Your task to perform on an android device: toggle pop-ups in chrome Image 0: 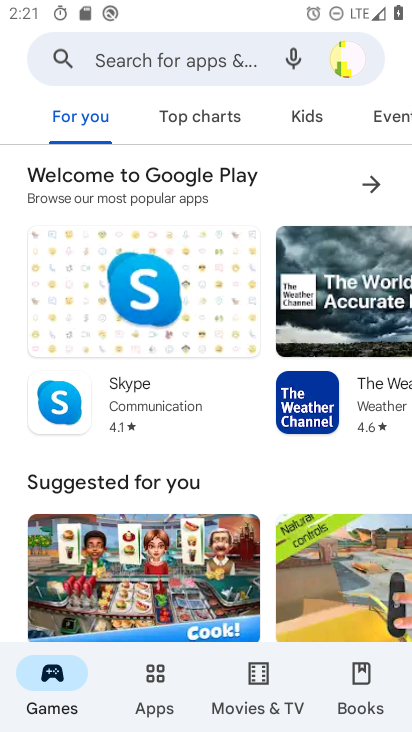
Step 0: press home button
Your task to perform on an android device: toggle pop-ups in chrome Image 1: 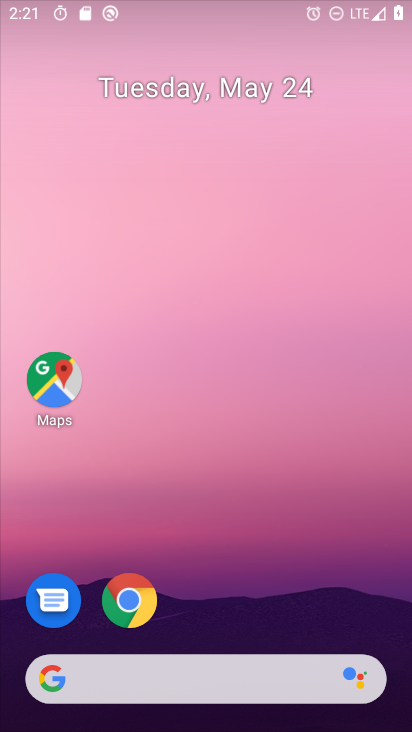
Step 1: drag from (298, 532) to (265, 129)
Your task to perform on an android device: toggle pop-ups in chrome Image 2: 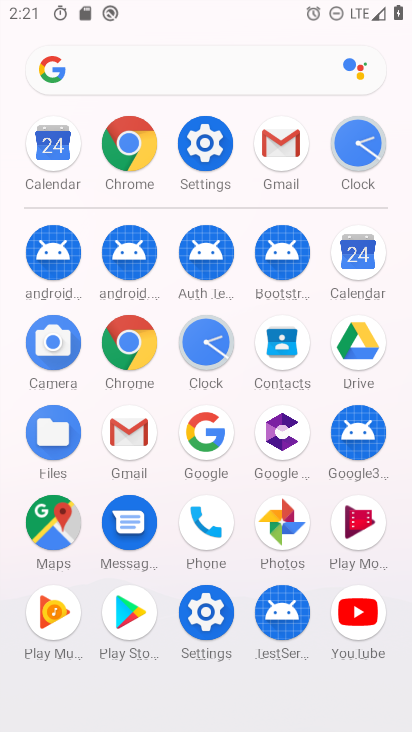
Step 2: click (137, 157)
Your task to perform on an android device: toggle pop-ups in chrome Image 3: 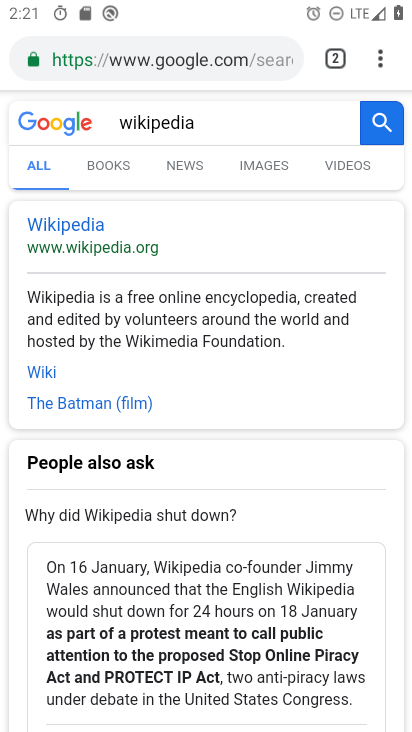
Step 3: click (389, 52)
Your task to perform on an android device: toggle pop-ups in chrome Image 4: 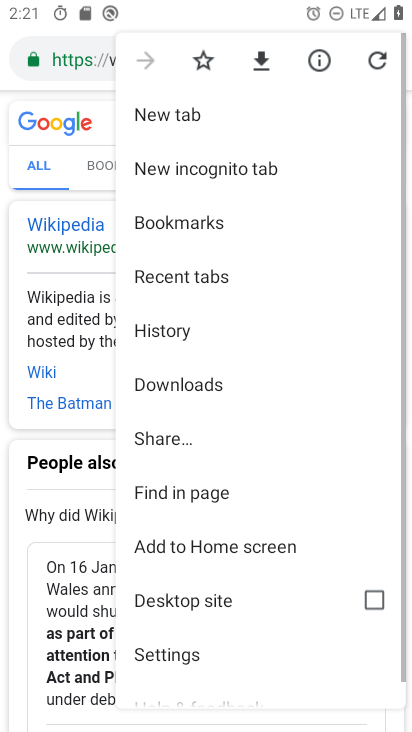
Step 4: drag from (283, 572) to (298, 133)
Your task to perform on an android device: toggle pop-ups in chrome Image 5: 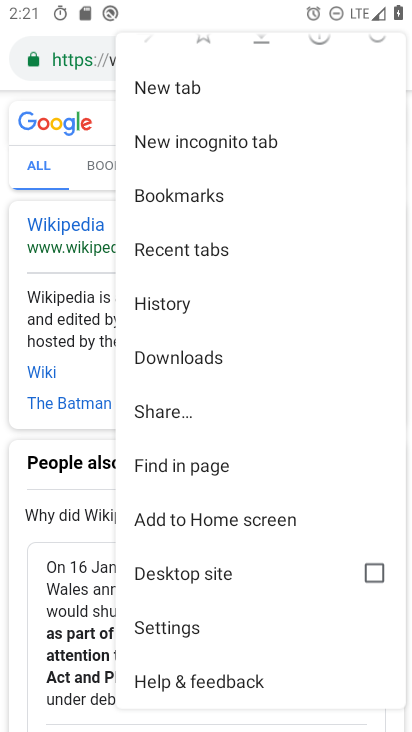
Step 5: click (216, 627)
Your task to perform on an android device: toggle pop-ups in chrome Image 6: 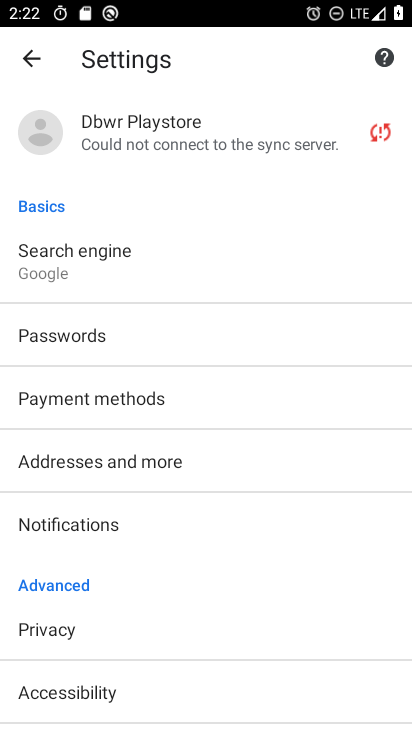
Step 6: drag from (190, 632) to (217, 245)
Your task to perform on an android device: toggle pop-ups in chrome Image 7: 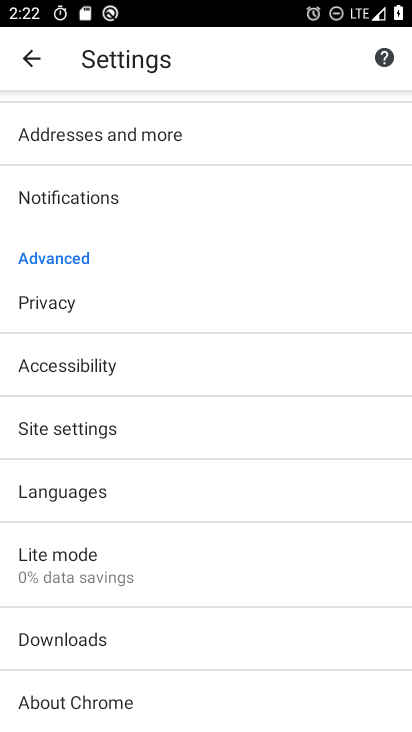
Step 7: click (128, 425)
Your task to perform on an android device: toggle pop-ups in chrome Image 8: 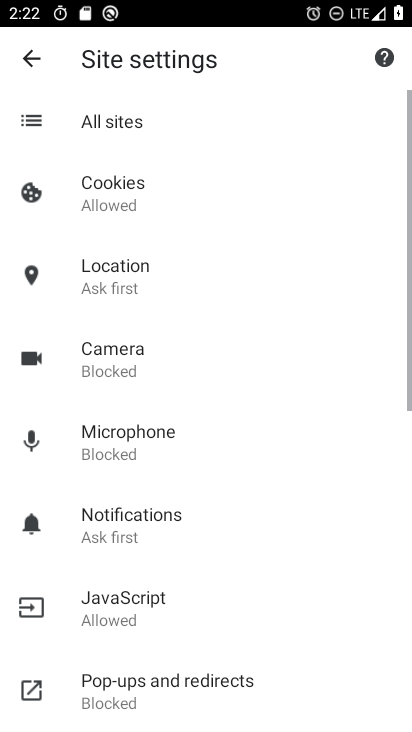
Step 8: drag from (259, 598) to (249, 212)
Your task to perform on an android device: toggle pop-ups in chrome Image 9: 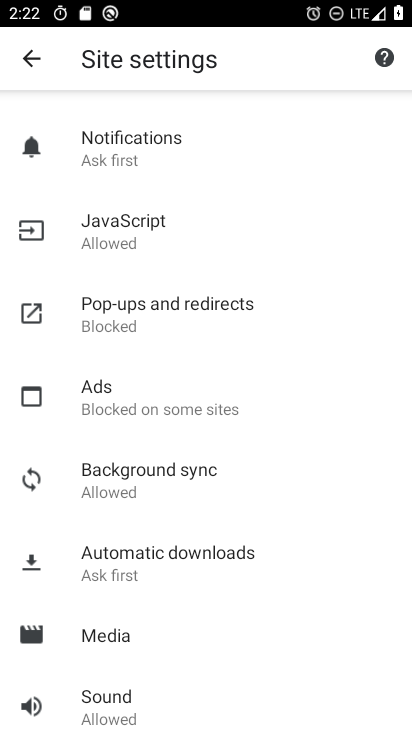
Step 9: click (207, 331)
Your task to perform on an android device: toggle pop-ups in chrome Image 10: 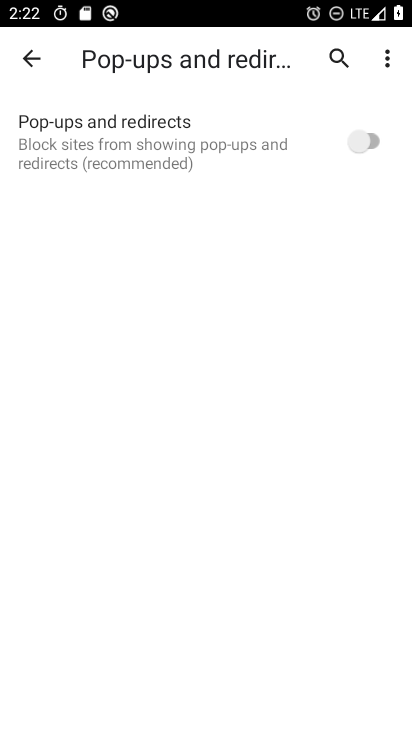
Step 10: click (350, 144)
Your task to perform on an android device: toggle pop-ups in chrome Image 11: 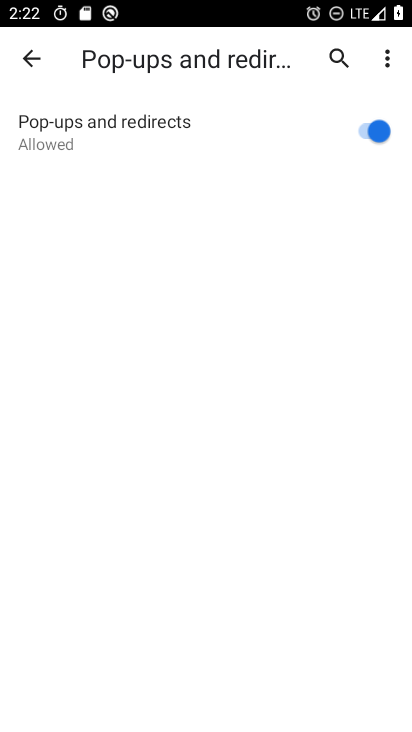
Step 11: task complete